Your task to perform on an android device: Clear the shopping cart on walmart. Image 0: 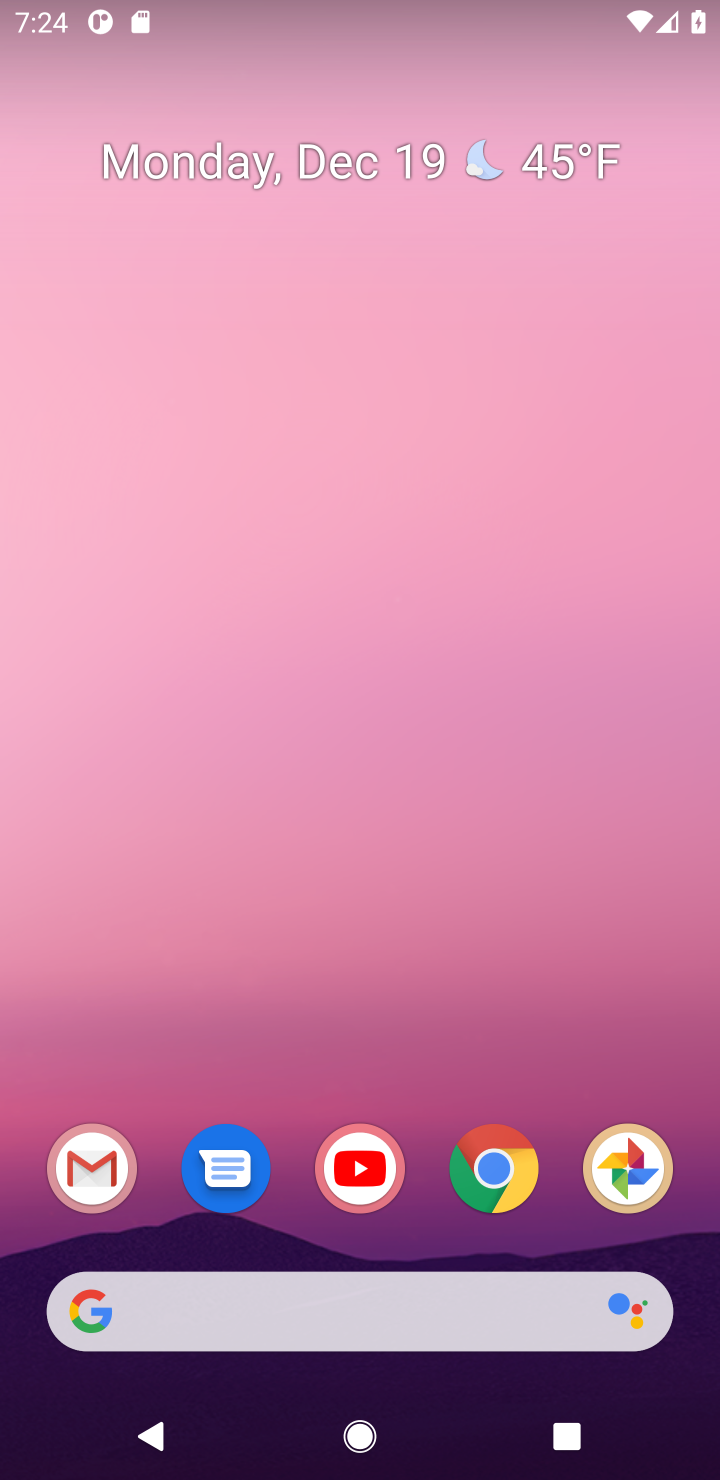
Step 0: click (485, 1172)
Your task to perform on an android device: Clear the shopping cart on walmart. Image 1: 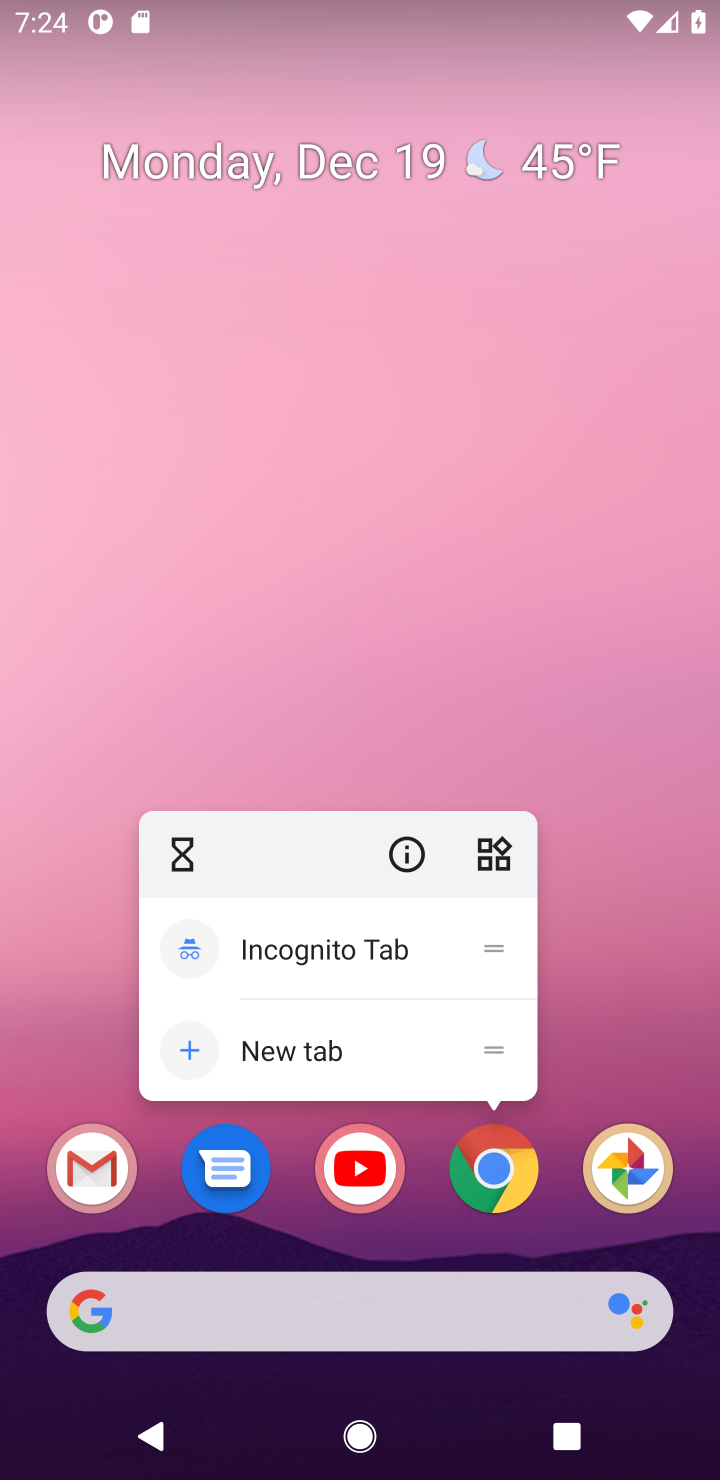
Step 1: click (501, 1183)
Your task to perform on an android device: Clear the shopping cart on walmart. Image 2: 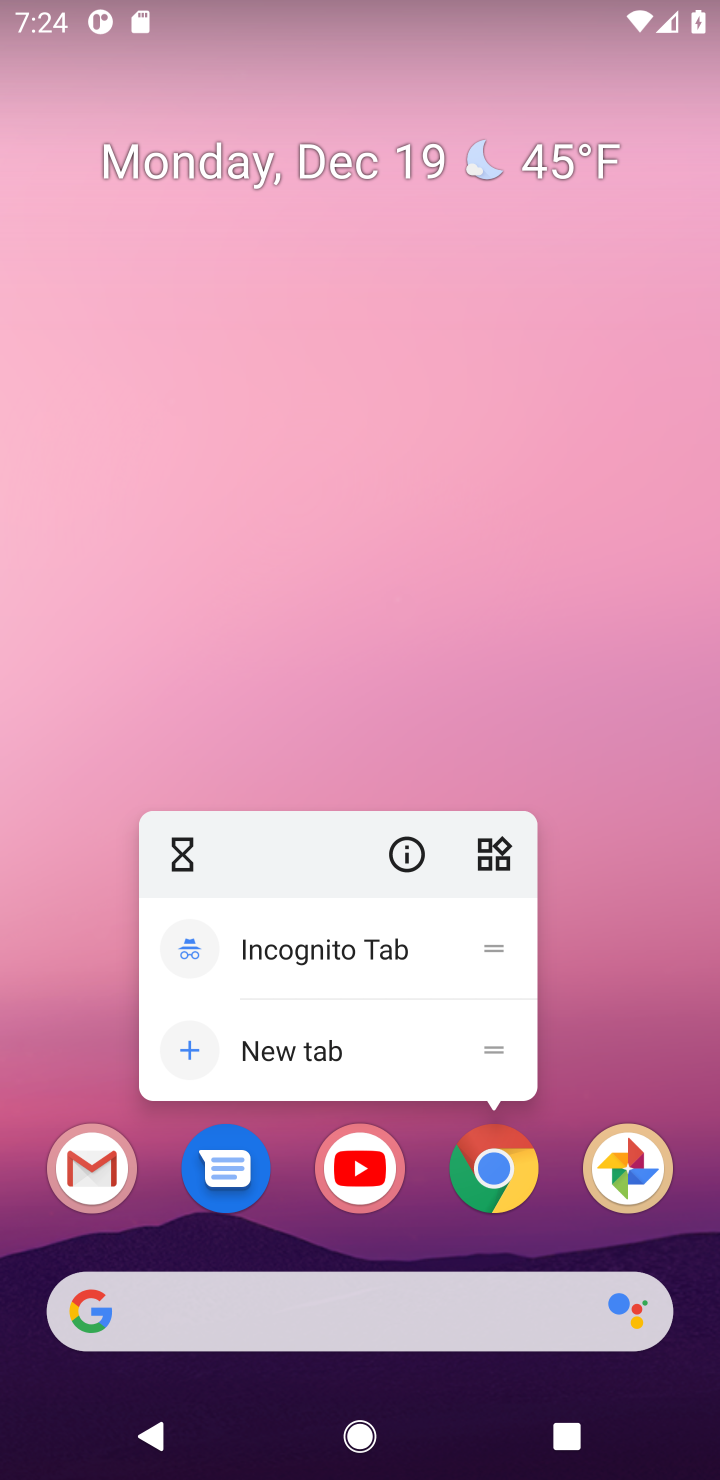
Step 2: click (498, 1171)
Your task to perform on an android device: Clear the shopping cart on walmart. Image 3: 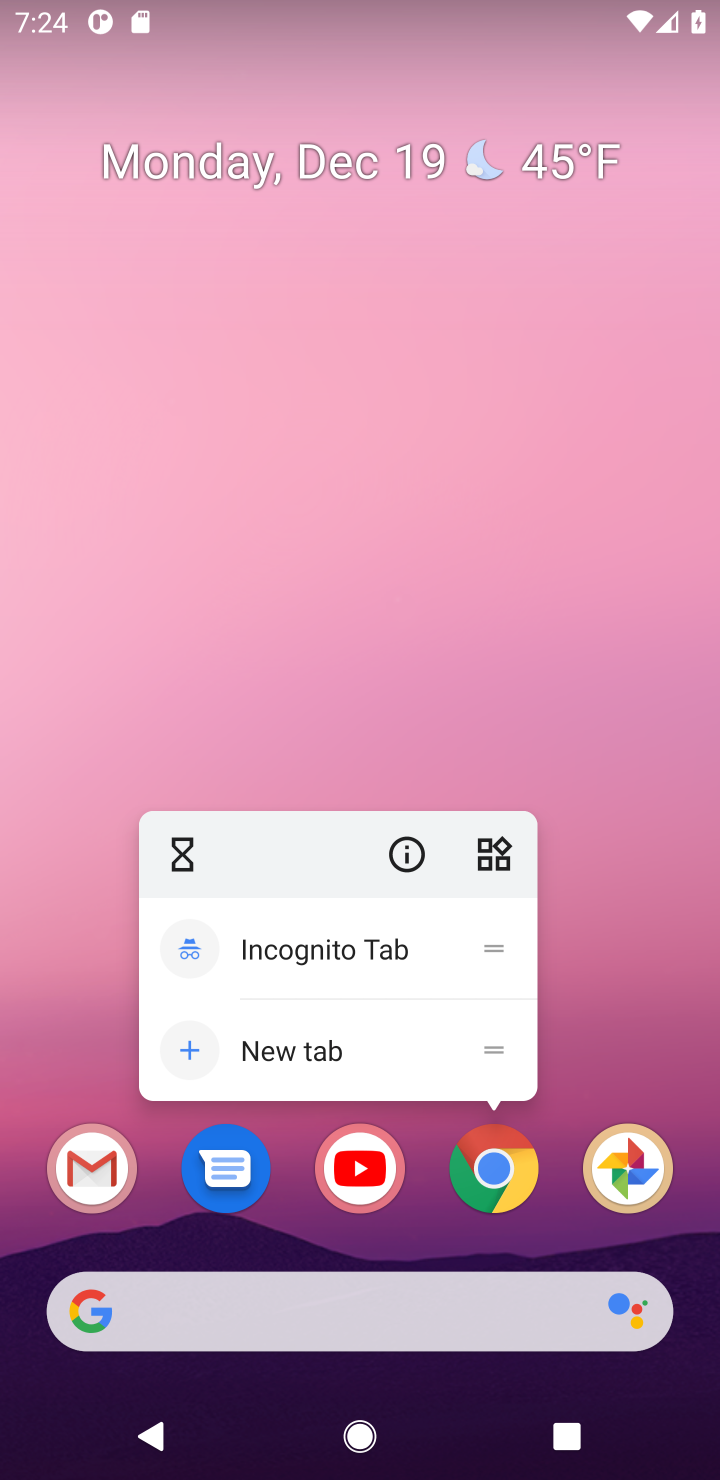
Step 3: click (494, 1173)
Your task to perform on an android device: Clear the shopping cart on walmart. Image 4: 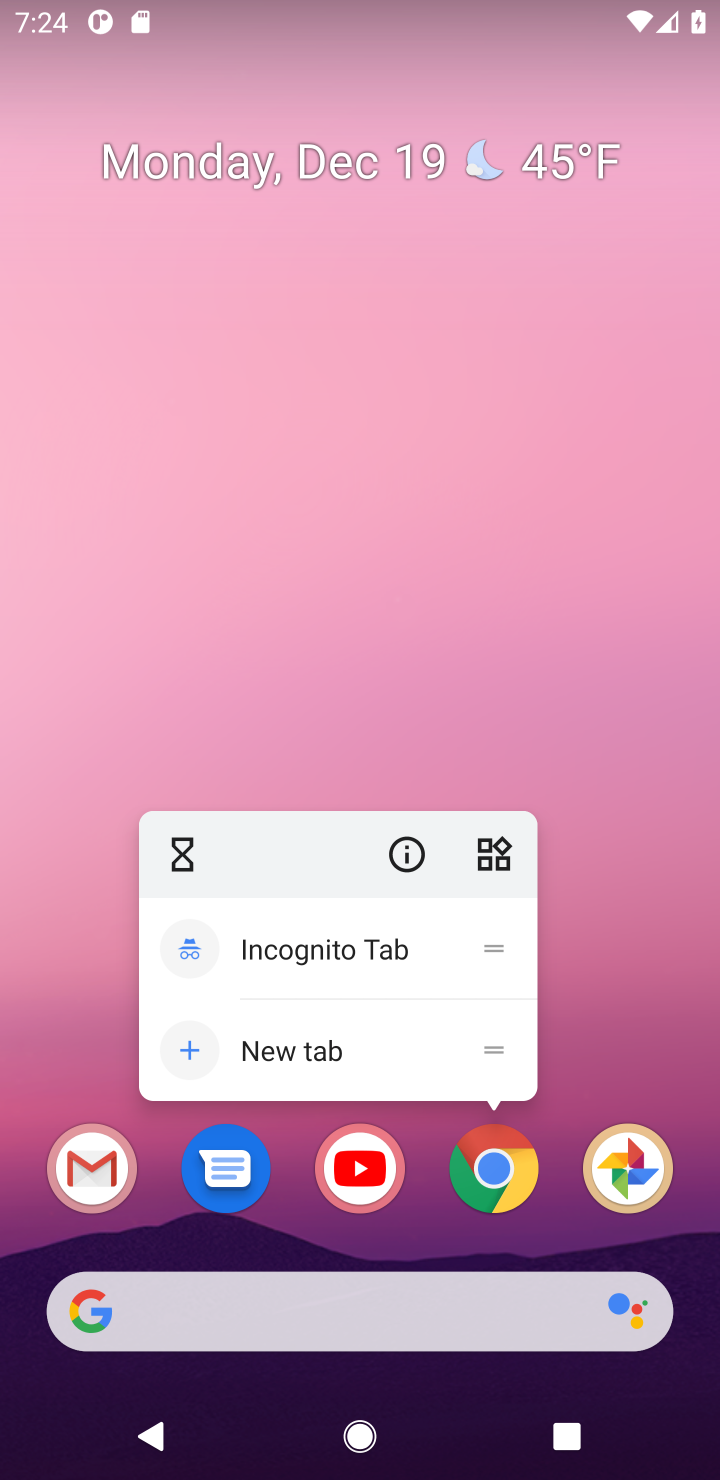
Step 4: click (611, 976)
Your task to perform on an android device: Clear the shopping cart on walmart. Image 5: 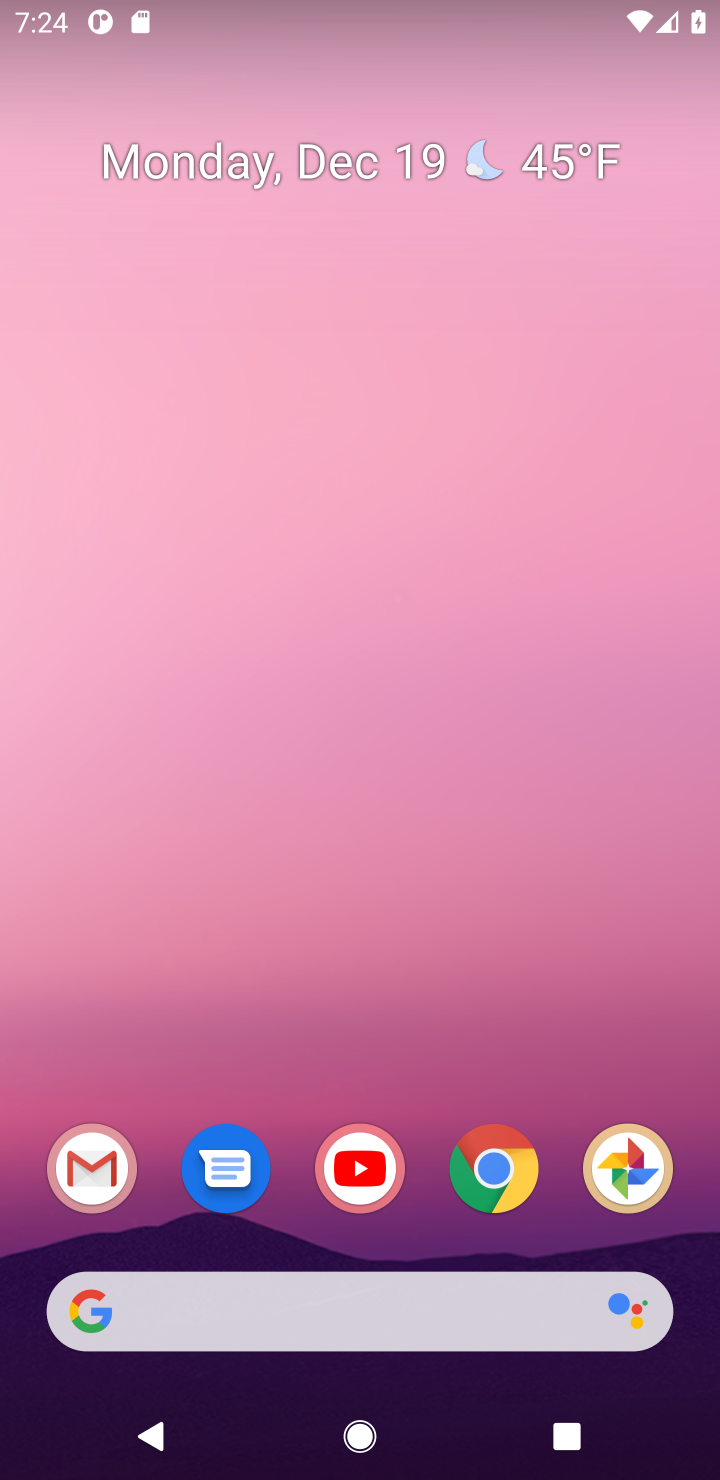
Step 5: click (501, 1160)
Your task to perform on an android device: Clear the shopping cart on walmart. Image 6: 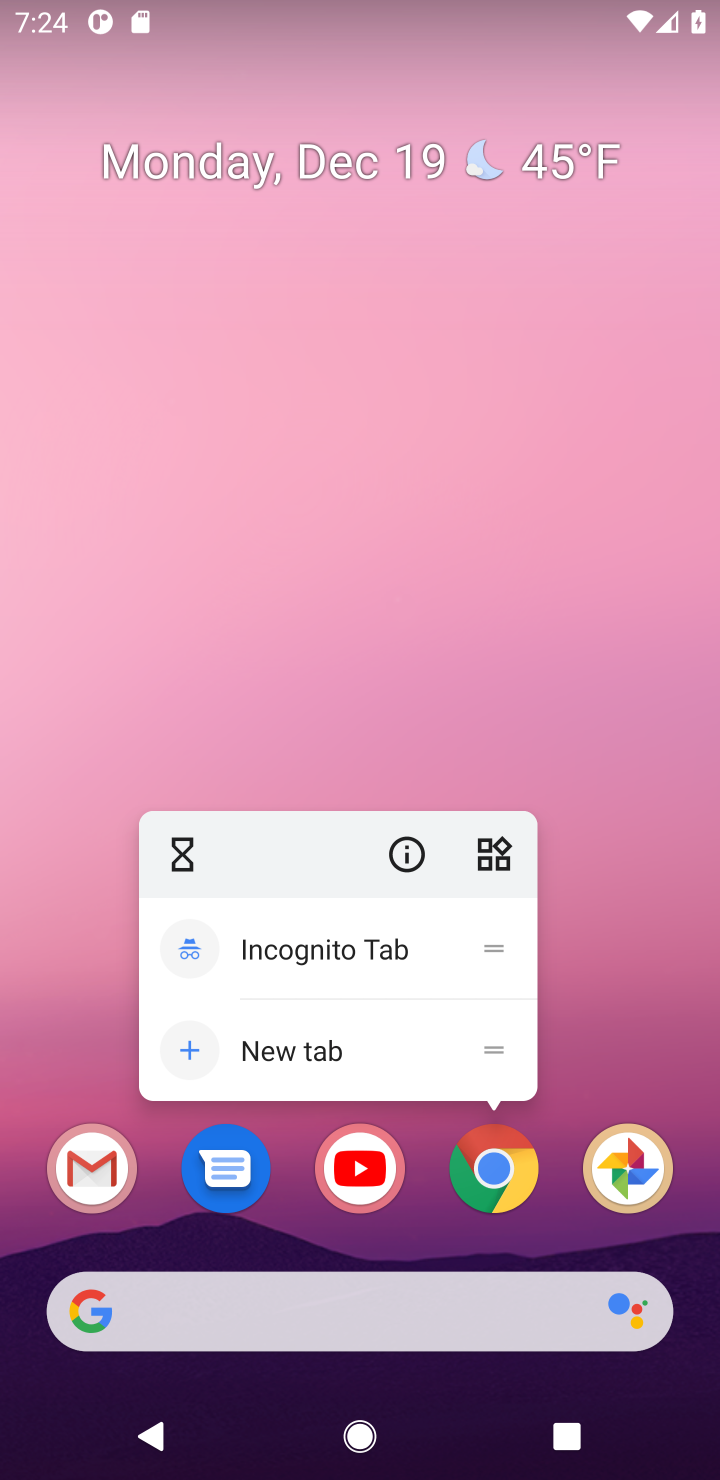
Step 6: click (482, 1171)
Your task to perform on an android device: Clear the shopping cart on walmart. Image 7: 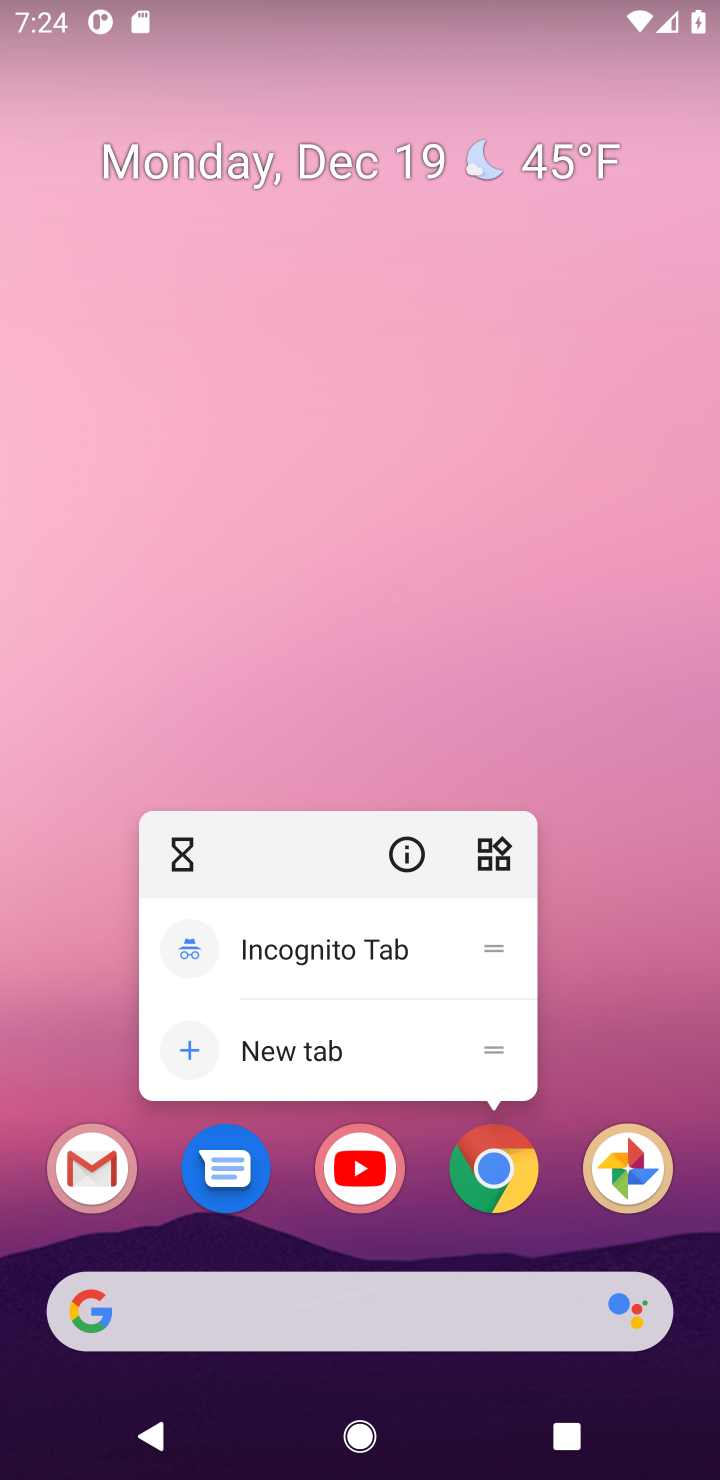
Step 7: click (627, 1008)
Your task to perform on an android device: Clear the shopping cart on walmart. Image 8: 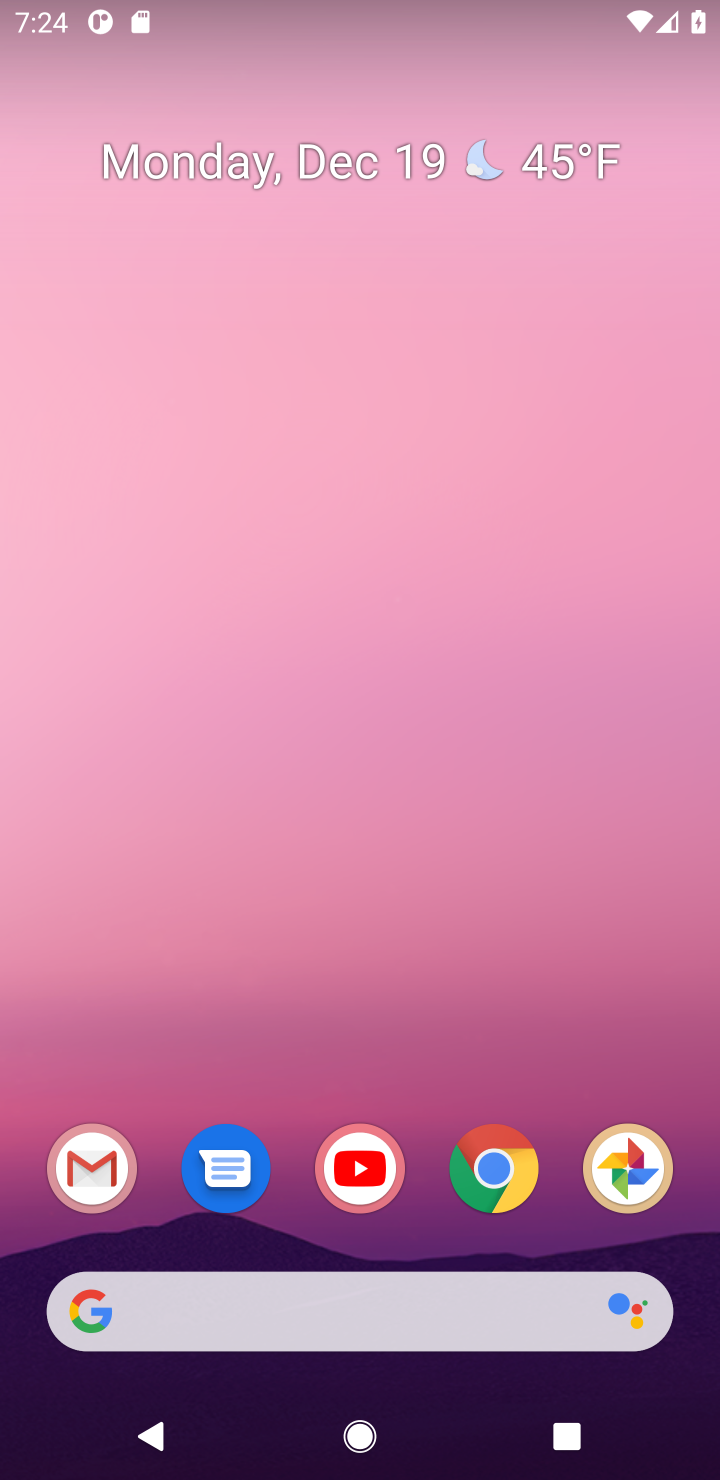
Step 8: click (493, 1184)
Your task to perform on an android device: Clear the shopping cart on walmart. Image 9: 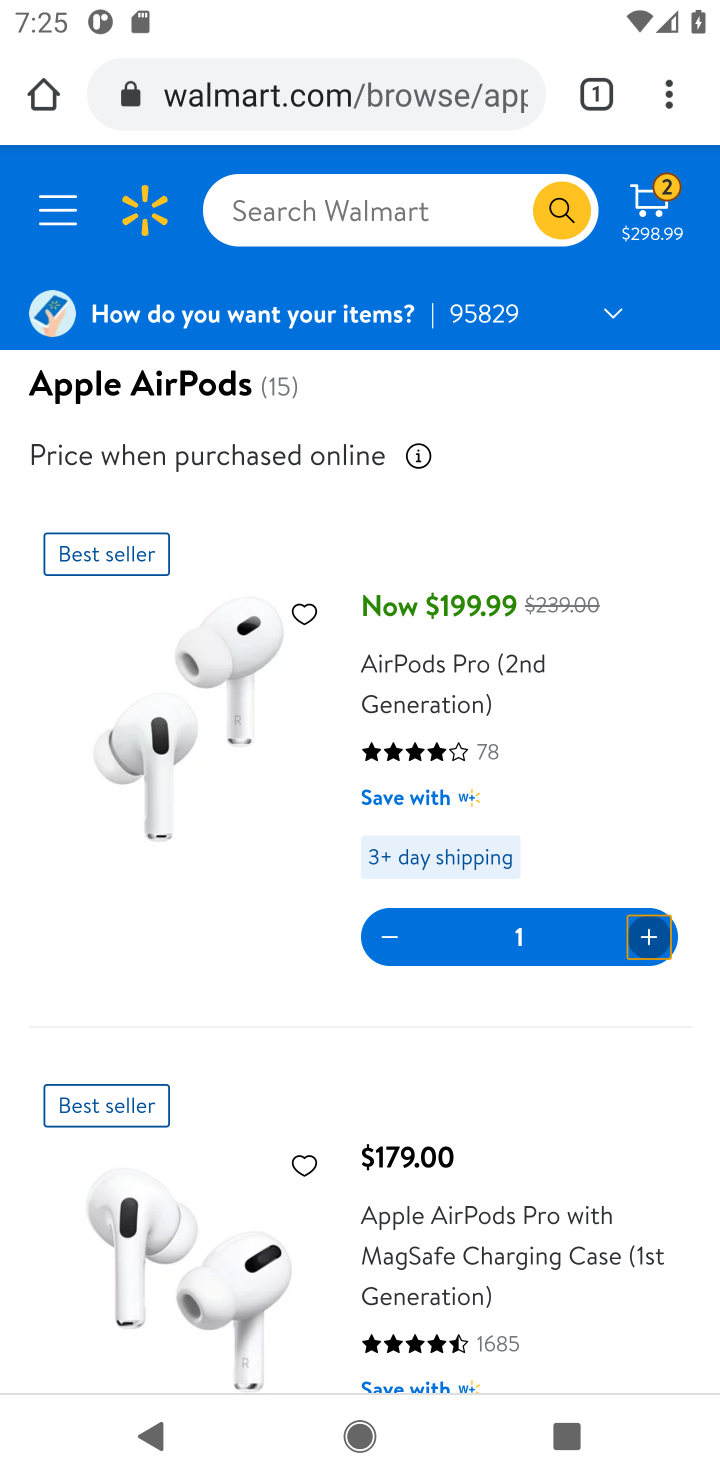
Step 9: click (655, 225)
Your task to perform on an android device: Clear the shopping cart on walmart. Image 10: 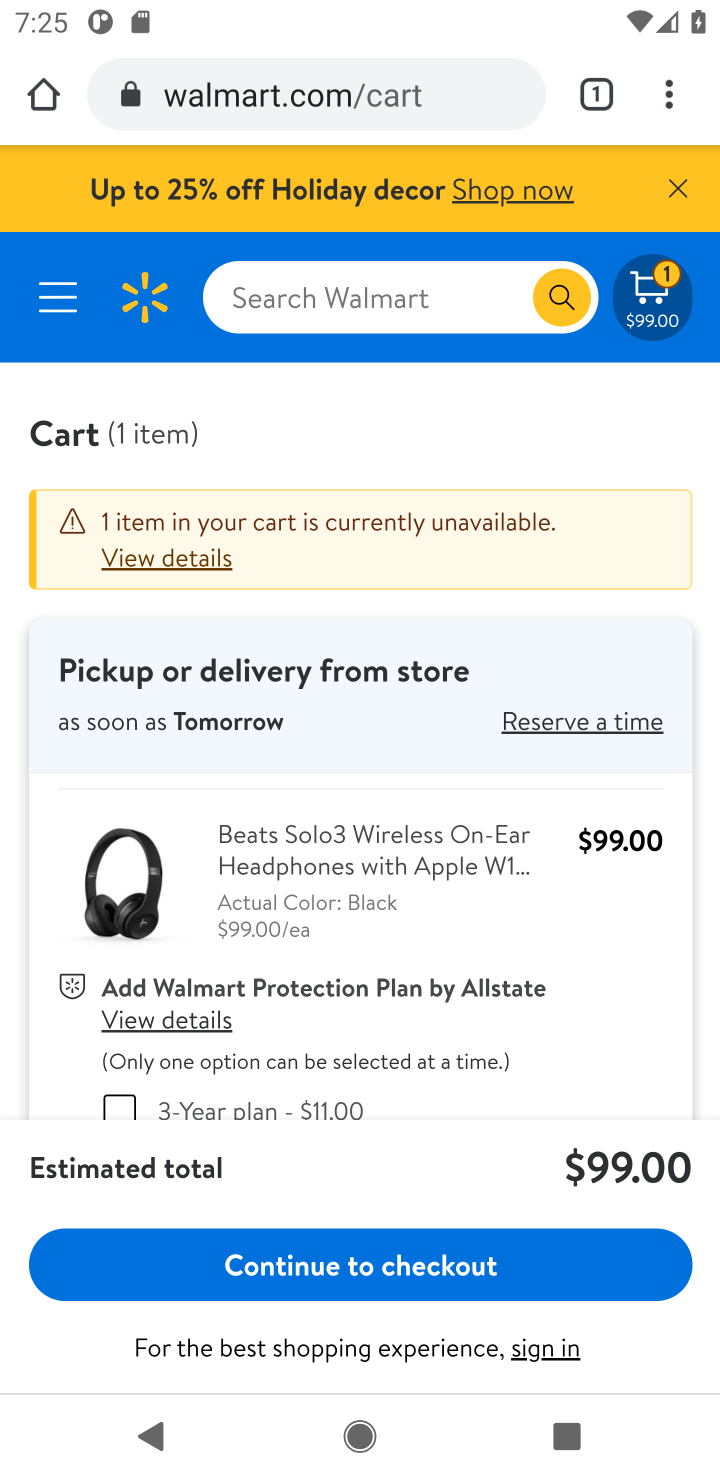
Step 10: drag from (268, 1009) to (284, 499)
Your task to perform on an android device: Clear the shopping cart on walmart. Image 11: 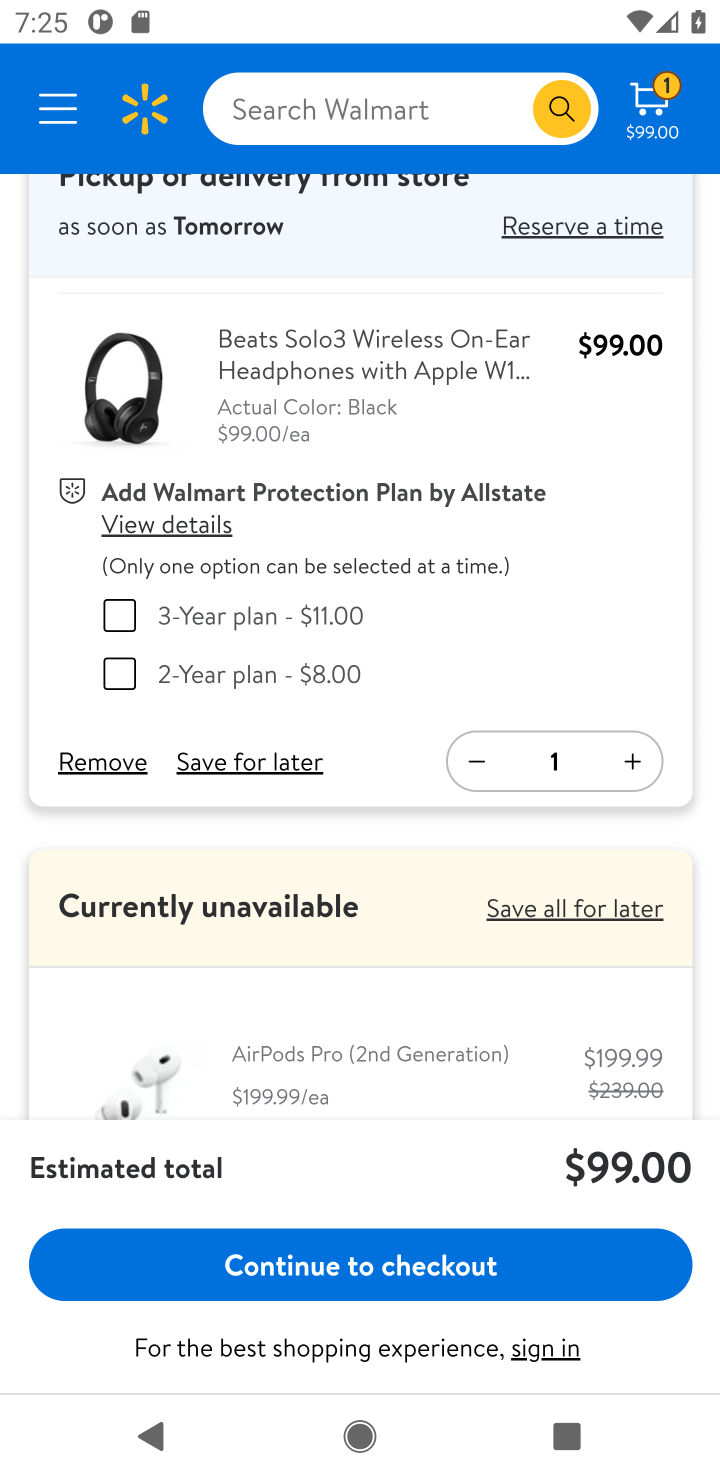
Step 11: click (116, 767)
Your task to perform on an android device: Clear the shopping cart on walmart. Image 12: 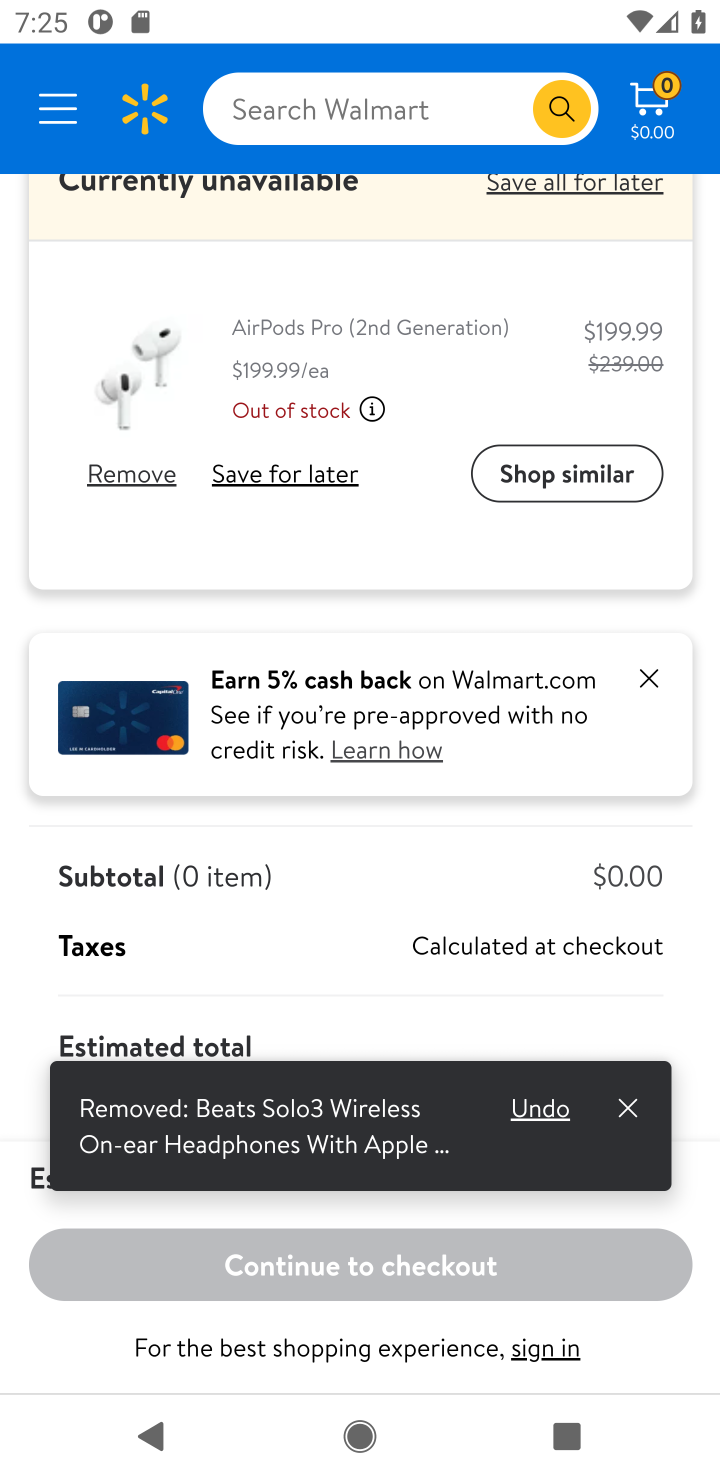
Step 12: click (121, 486)
Your task to perform on an android device: Clear the shopping cart on walmart. Image 13: 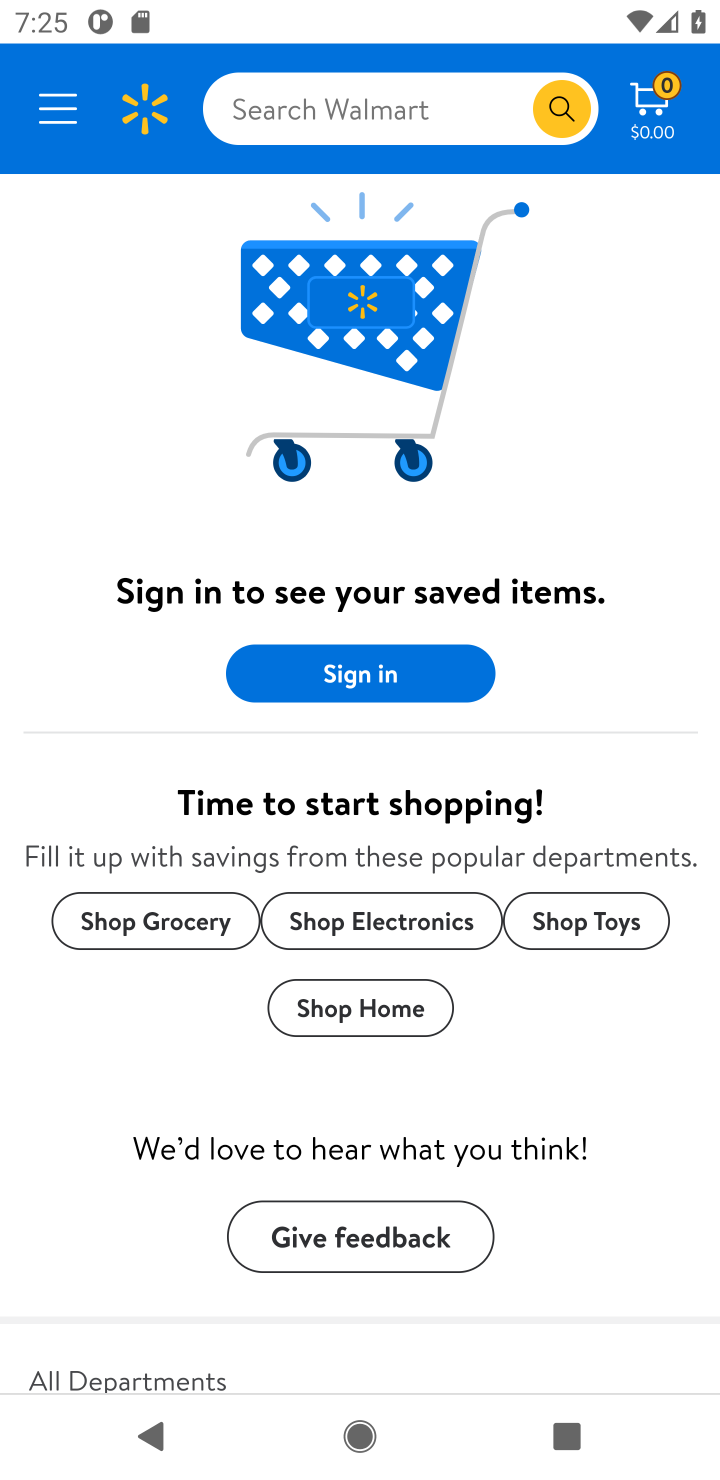
Step 13: task complete